Your task to perform on an android device: delete a single message in the gmail app Image 0: 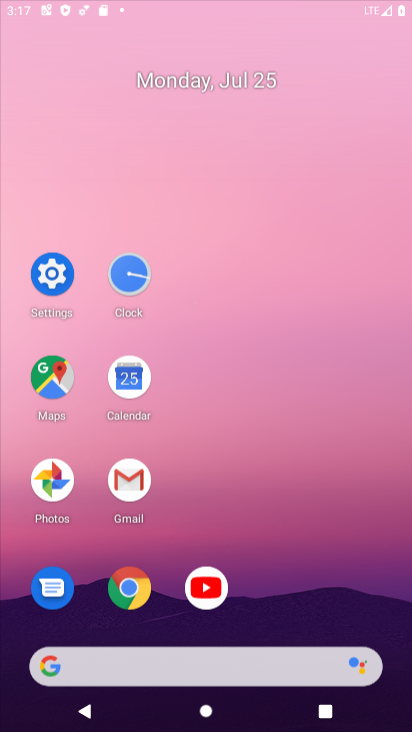
Step 0: click (52, 276)
Your task to perform on an android device: delete a single message in the gmail app Image 1: 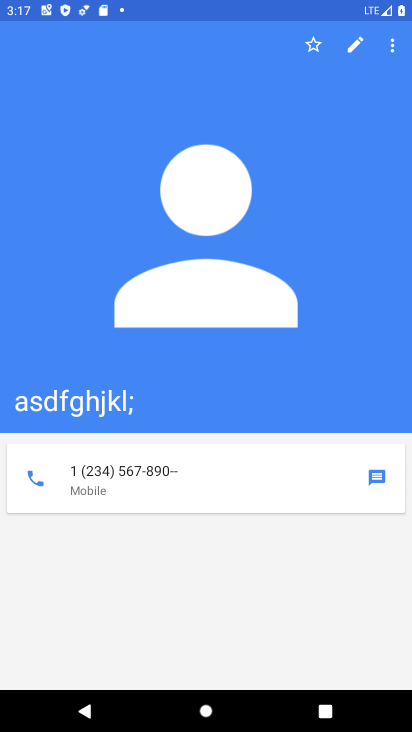
Step 1: press home button
Your task to perform on an android device: delete a single message in the gmail app Image 2: 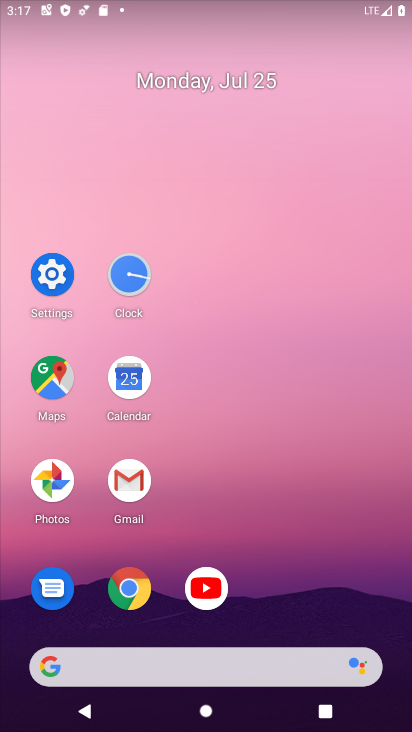
Step 2: click (127, 480)
Your task to perform on an android device: delete a single message in the gmail app Image 3: 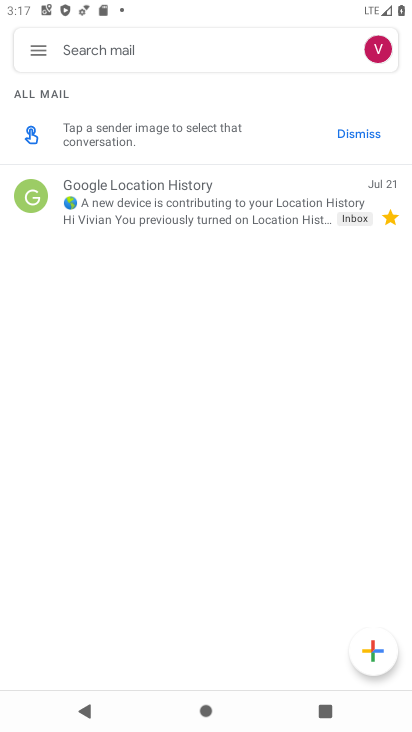
Step 3: click (153, 205)
Your task to perform on an android device: delete a single message in the gmail app Image 4: 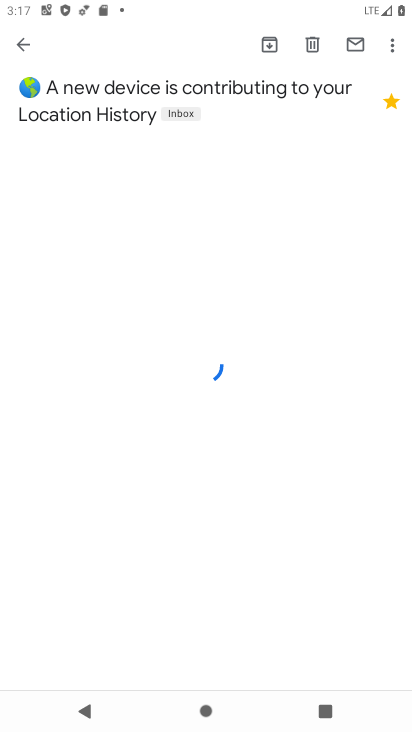
Step 4: click (307, 38)
Your task to perform on an android device: delete a single message in the gmail app Image 5: 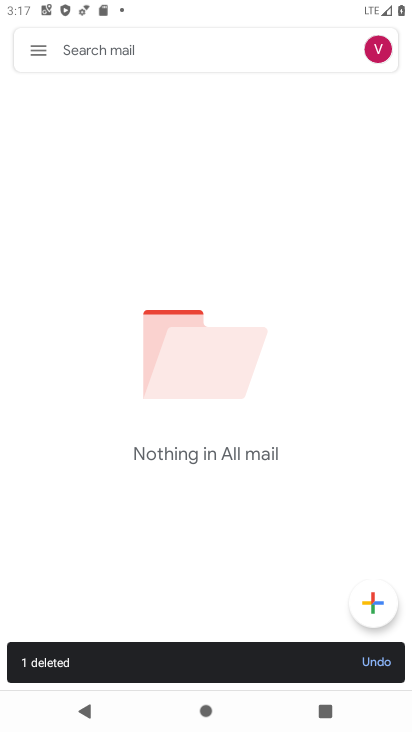
Step 5: task complete